Your task to perform on an android device: turn vacation reply on in the gmail app Image 0: 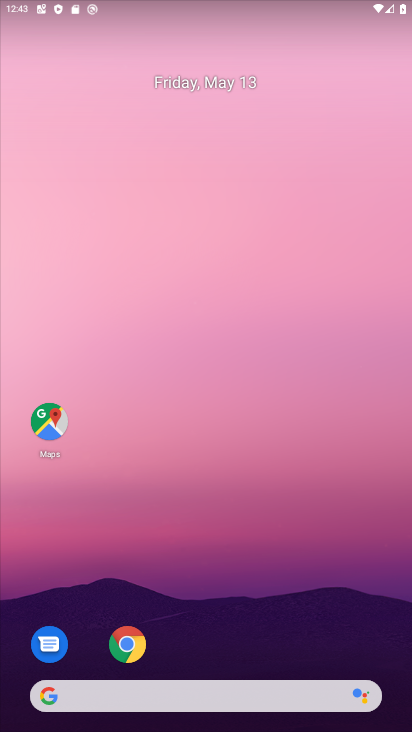
Step 0: drag from (258, 616) to (278, 85)
Your task to perform on an android device: turn vacation reply on in the gmail app Image 1: 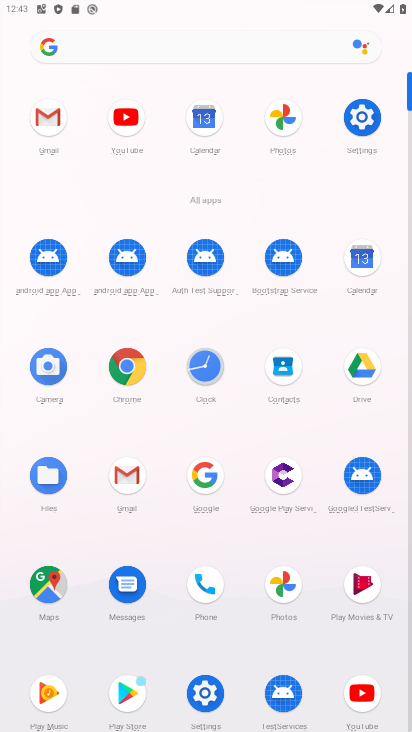
Step 1: click (54, 119)
Your task to perform on an android device: turn vacation reply on in the gmail app Image 2: 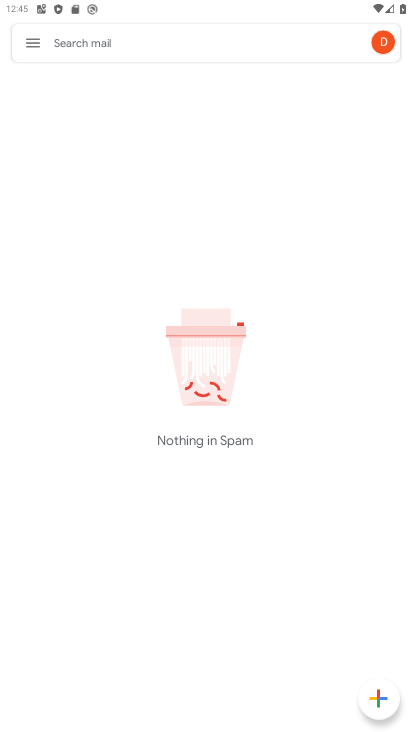
Step 2: click (31, 37)
Your task to perform on an android device: turn vacation reply on in the gmail app Image 3: 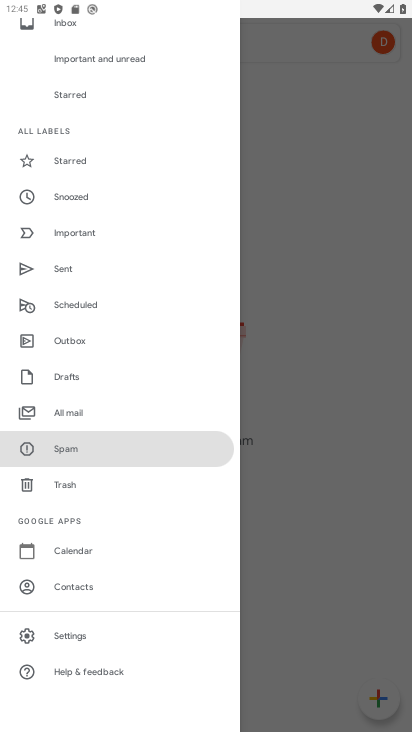
Step 3: click (84, 639)
Your task to perform on an android device: turn vacation reply on in the gmail app Image 4: 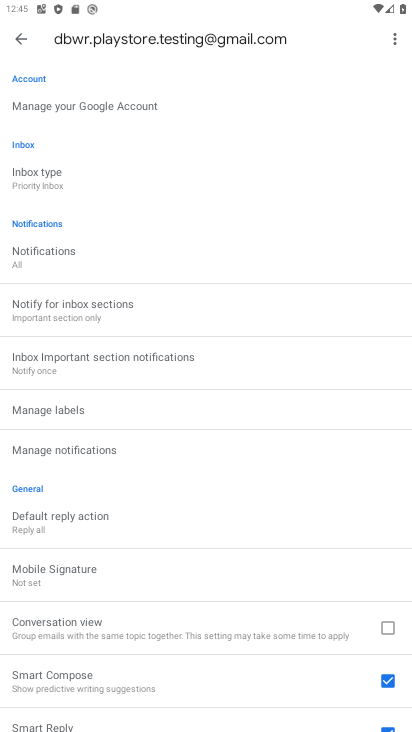
Step 4: drag from (198, 516) to (212, 194)
Your task to perform on an android device: turn vacation reply on in the gmail app Image 5: 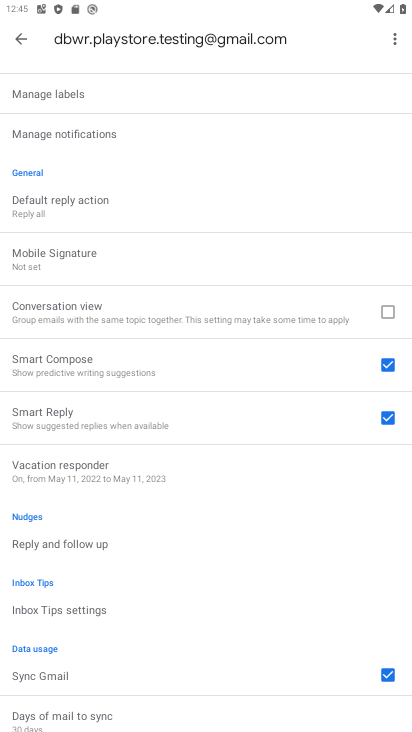
Step 5: drag from (233, 579) to (254, 212)
Your task to perform on an android device: turn vacation reply on in the gmail app Image 6: 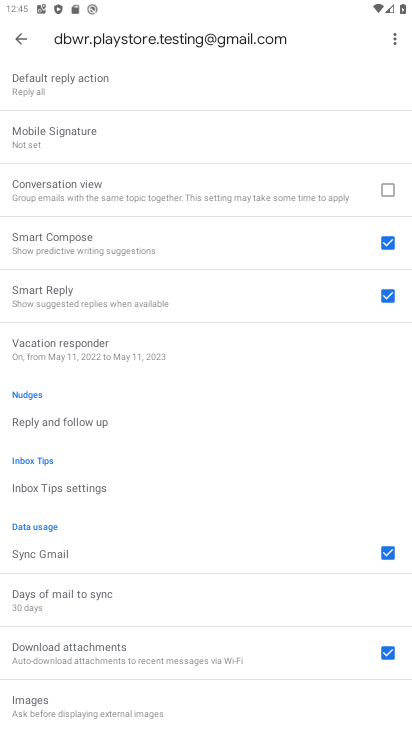
Step 6: click (140, 358)
Your task to perform on an android device: turn vacation reply on in the gmail app Image 7: 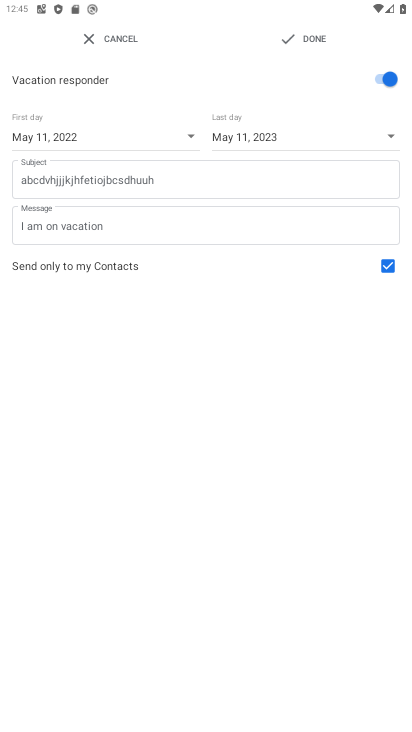
Step 7: click (306, 40)
Your task to perform on an android device: turn vacation reply on in the gmail app Image 8: 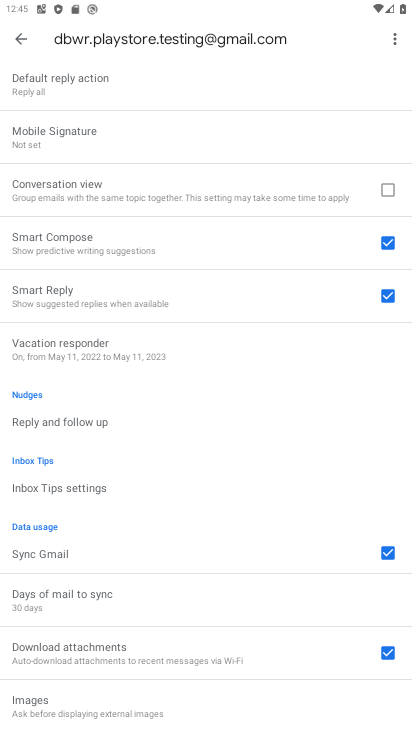
Step 8: task complete